Your task to perform on an android device: Go to Yahoo.com Image 0: 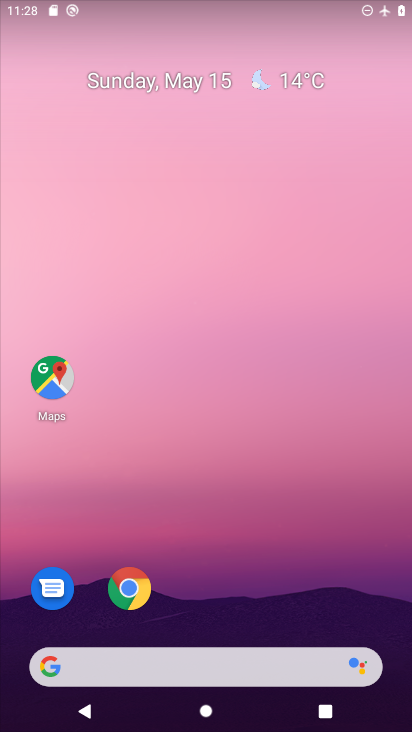
Step 0: click (141, 591)
Your task to perform on an android device: Go to Yahoo.com Image 1: 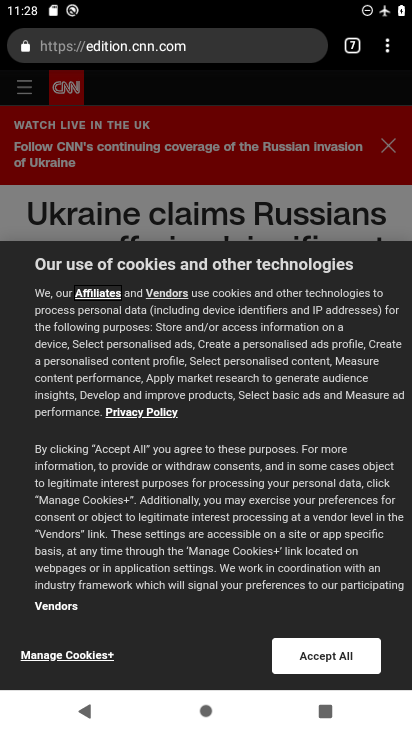
Step 1: click (211, 51)
Your task to perform on an android device: Go to Yahoo.com Image 2: 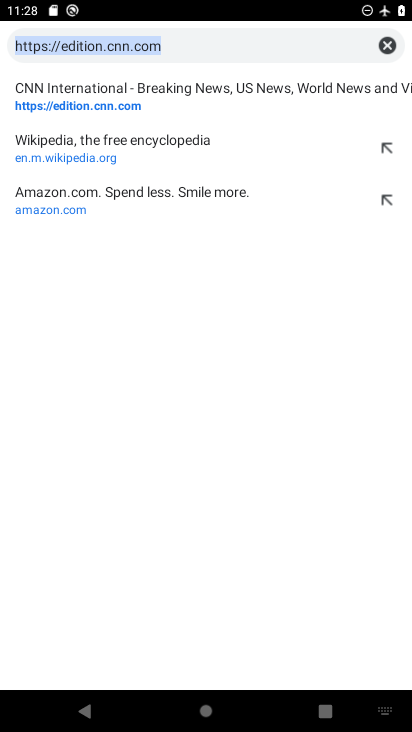
Step 2: type "yahoo.com"
Your task to perform on an android device: Go to Yahoo.com Image 3: 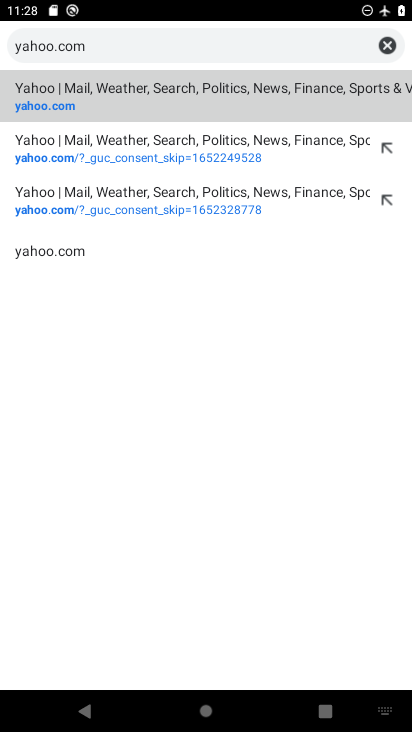
Step 3: click (153, 102)
Your task to perform on an android device: Go to Yahoo.com Image 4: 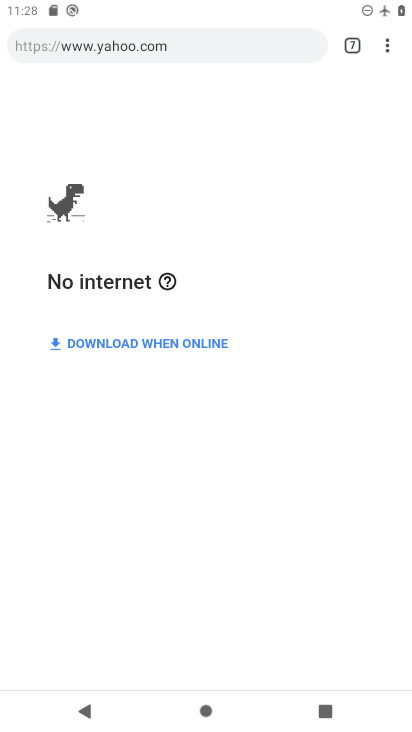
Step 4: task complete